Your task to perform on an android device: change the upload size in google photos Image 0: 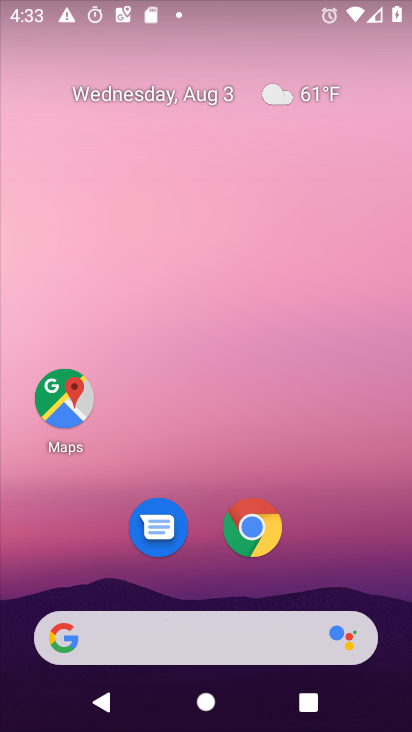
Step 0: drag from (320, 527) to (332, 80)
Your task to perform on an android device: change the upload size in google photos Image 1: 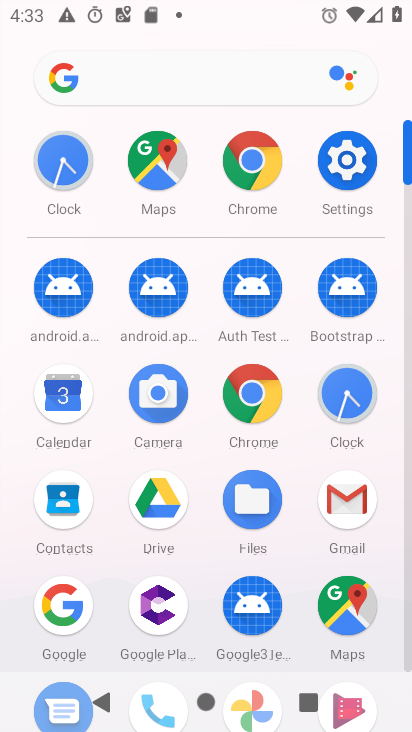
Step 1: drag from (298, 580) to (341, 197)
Your task to perform on an android device: change the upload size in google photos Image 2: 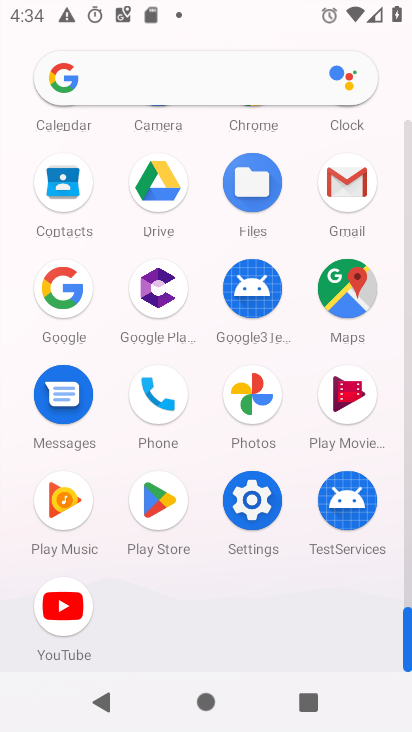
Step 2: click (261, 403)
Your task to perform on an android device: change the upload size in google photos Image 3: 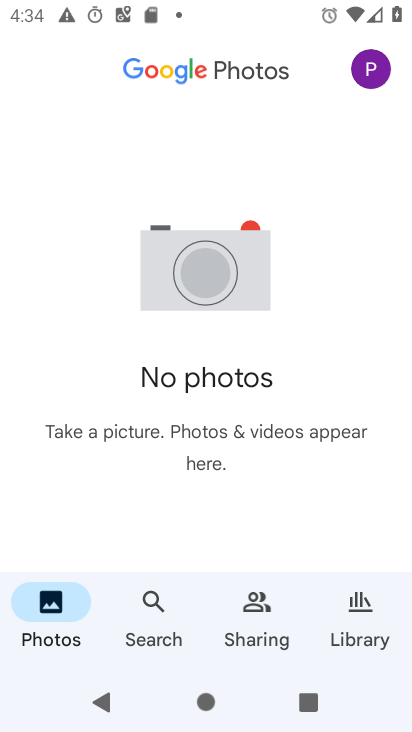
Step 3: click (368, 64)
Your task to perform on an android device: change the upload size in google photos Image 4: 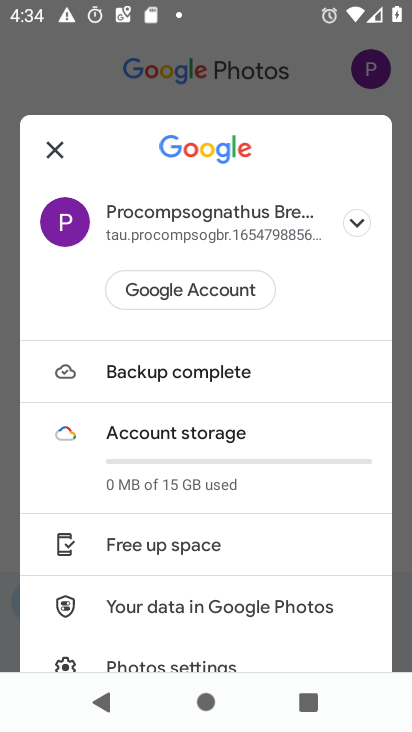
Step 4: drag from (276, 558) to (353, 78)
Your task to perform on an android device: change the upload size in google photos Image 5: 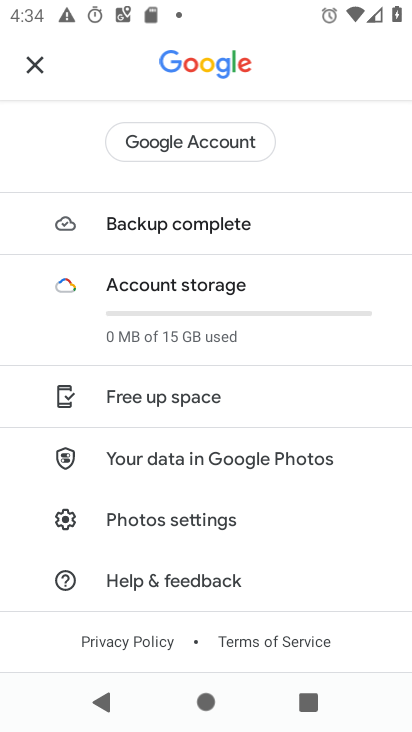
Step 5: click (222, 520)
Your task to perform on an android device: change the upload size in google photos Image 6: 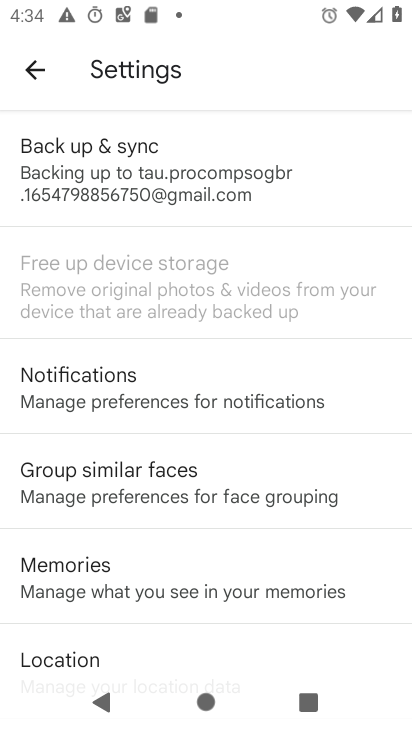
Step 6: click (248, 197)
Your task to perform on an android device: change the upload size in google photos Image 7: 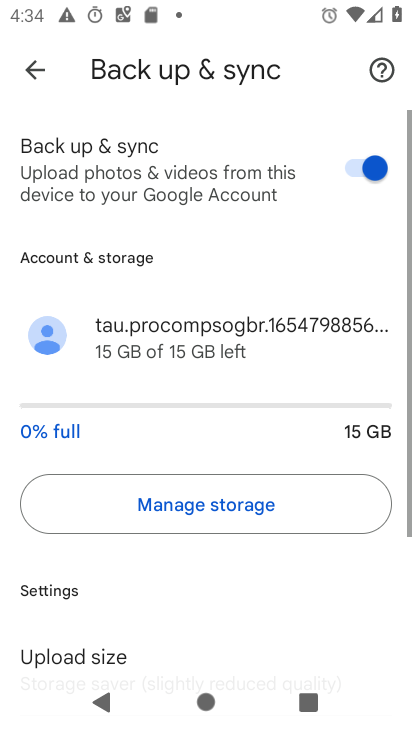
Step 7: drag from (193, 581) to (272, 211)
Your task to perform on an android device: change the upload size in google photos Image 8: 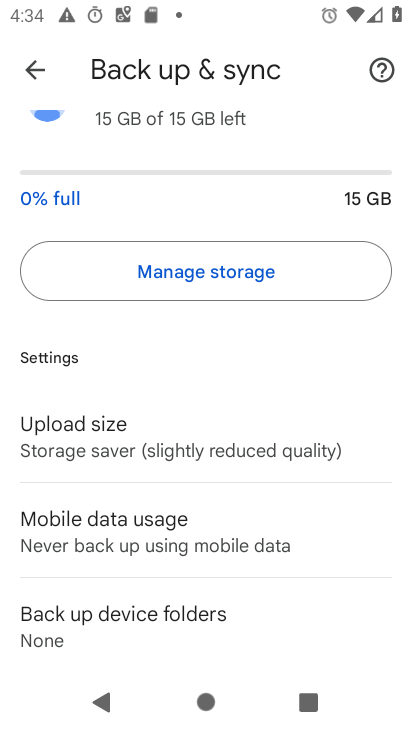
Step 8: click (258, 446)
Your task to perform on an android device: change the upload size in google photos Image 9: 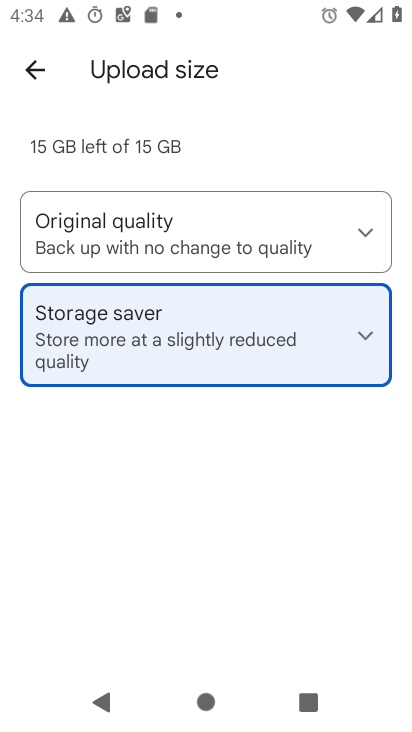
Step 9: click (231, 232)
Your task to perform on an android device: change the upload size in google photos Image 10: 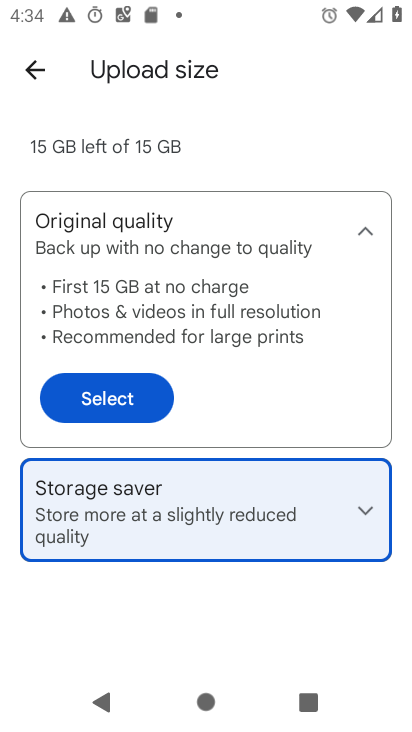
Step 10: click (137, 386)
Your task to perform on an android device: change the upload size in google photos Image 11: 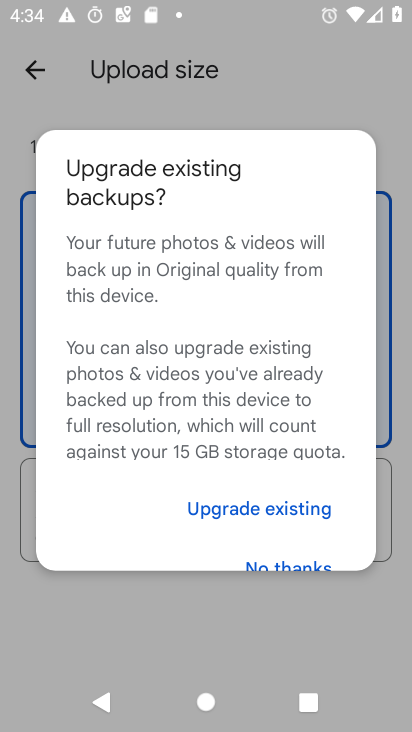
Step 11: click (286, 561)
Your task to perform on an android device: change the upload size in google photos Image 12: 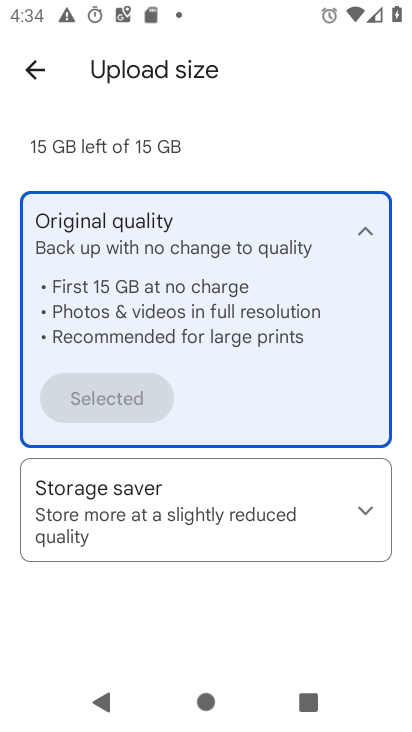
Step 12: task complete